Your task to perform on an android device: Go to sound settings Image 0: 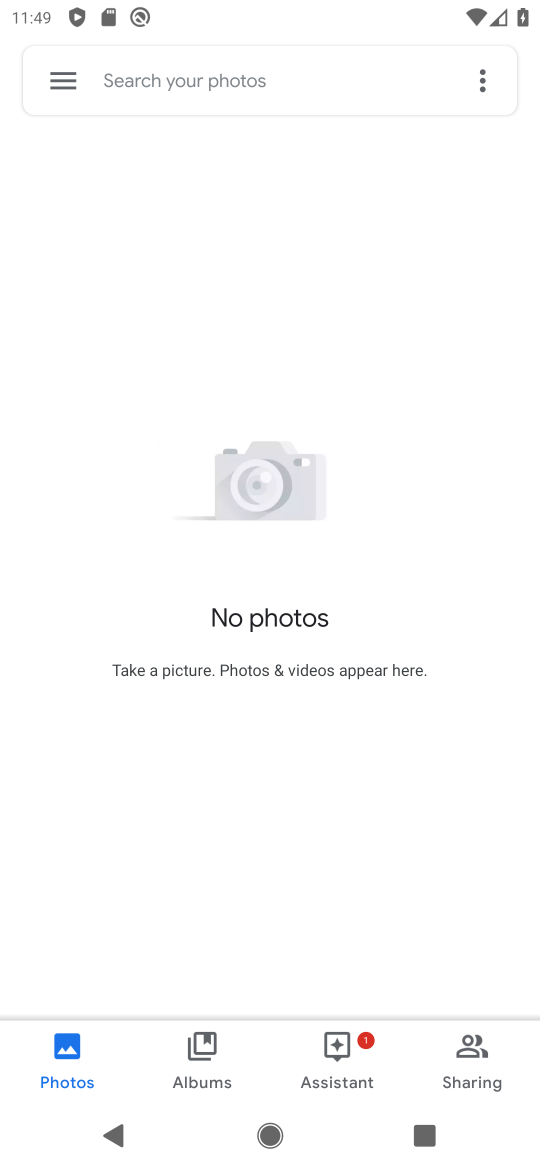
Step 0: press home button
Your task to perform on an android device: Go to sound settings Image 1: 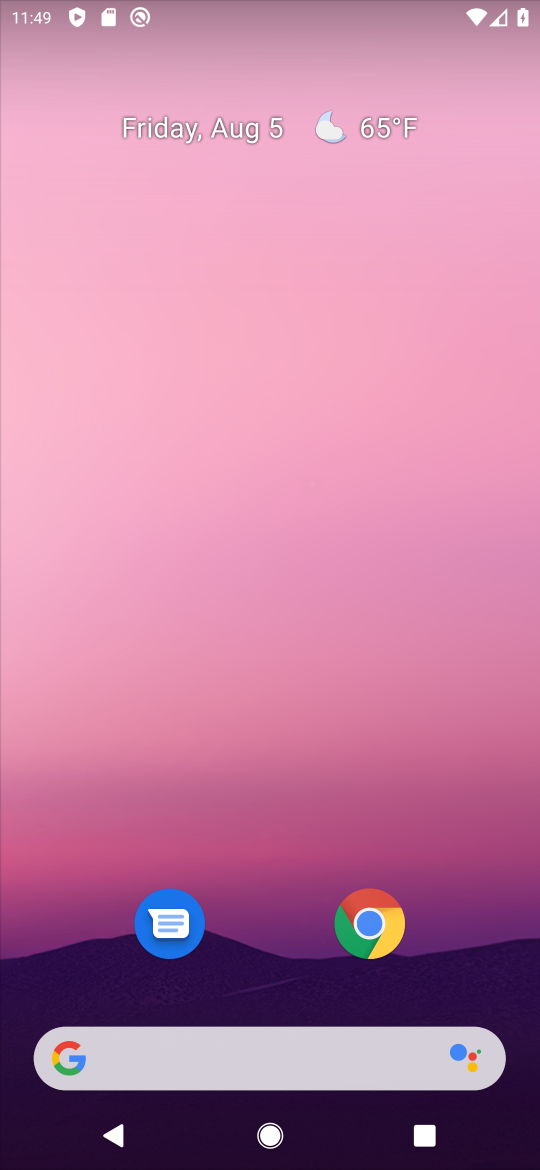
Step 1: drag from (495, 949) to (402, 216)
Your task to perform on an android device: Go to sound settings Image 2: 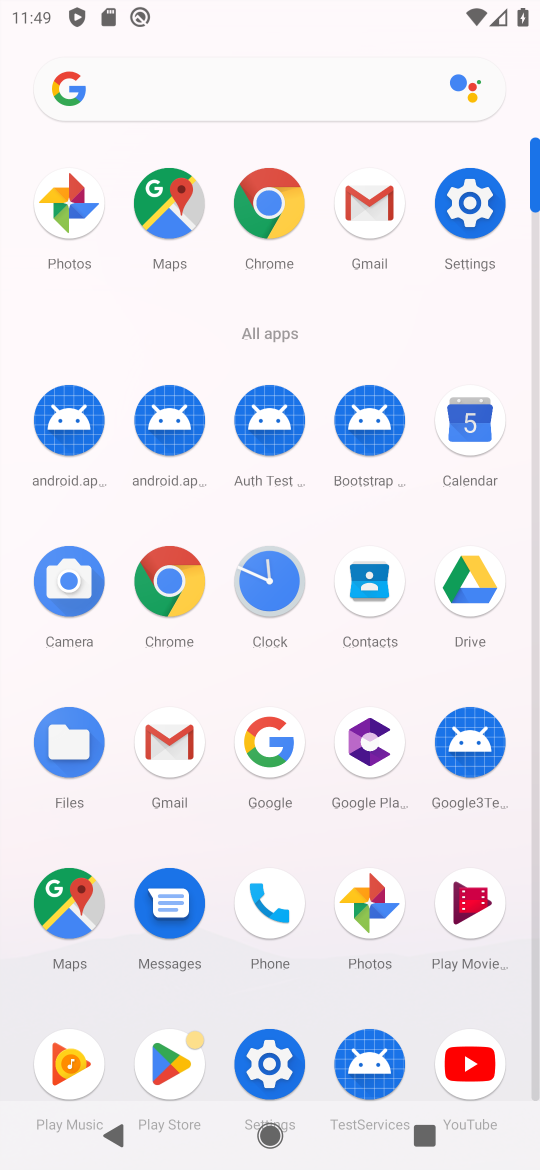
Step 2: click (480, 200)
Your task to perform on an android device: Go to sound settings Image 3: 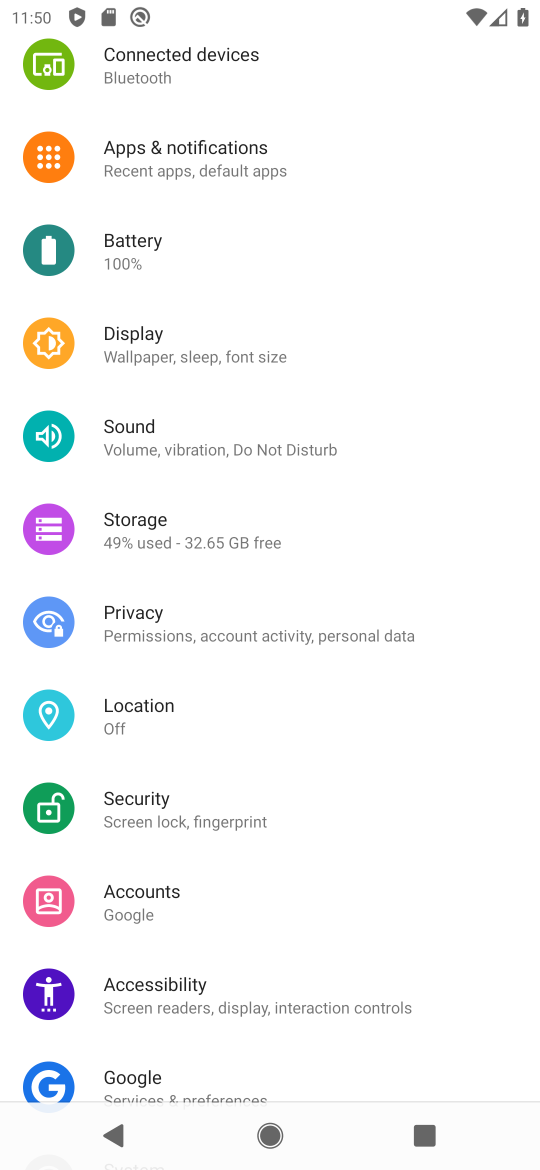
Step 3: click (241, 447)
Your task to perform on an android device: Go to sound settings Image 4: 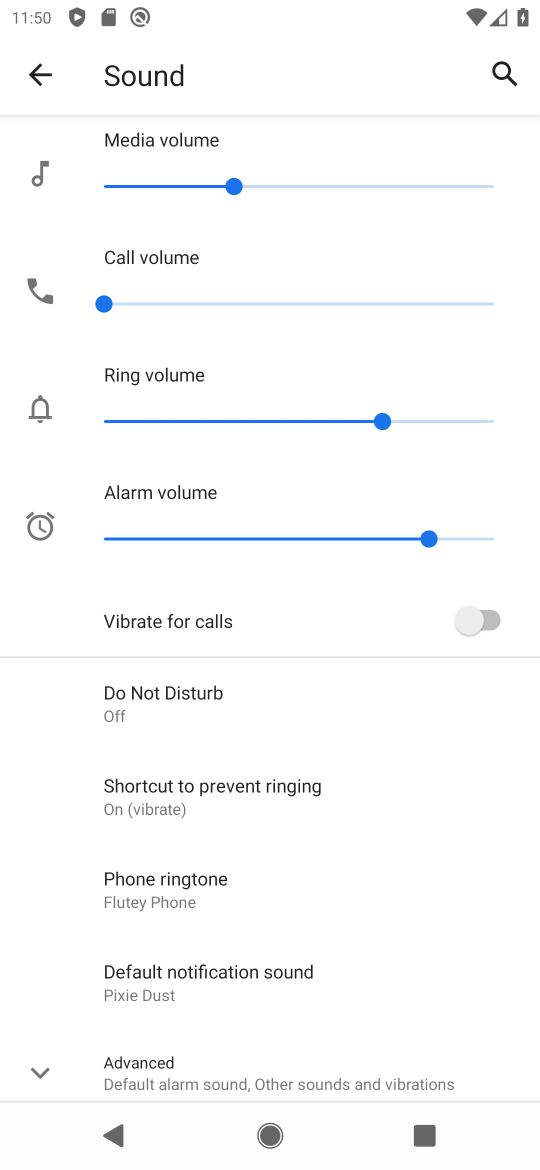
Step 4: task complete